Your task to perform on an android device: open a bookmark in the chrome app Image 0: 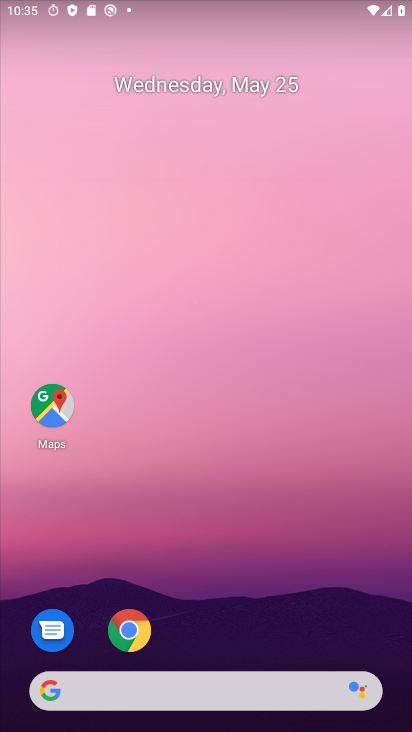
Step 0: click (126, 633)
Your task to perform on an android device: open a bookmark in the chrome app Image 1: 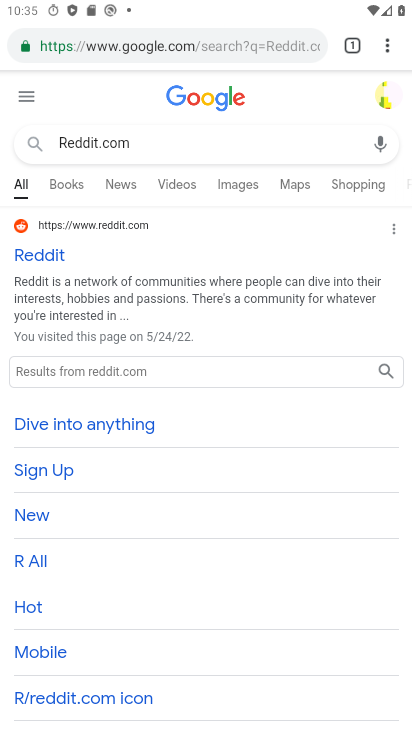
Step 1: click (318, 43)
Your task to perform on an android device: open a bookmark in the chrome app Image 2: 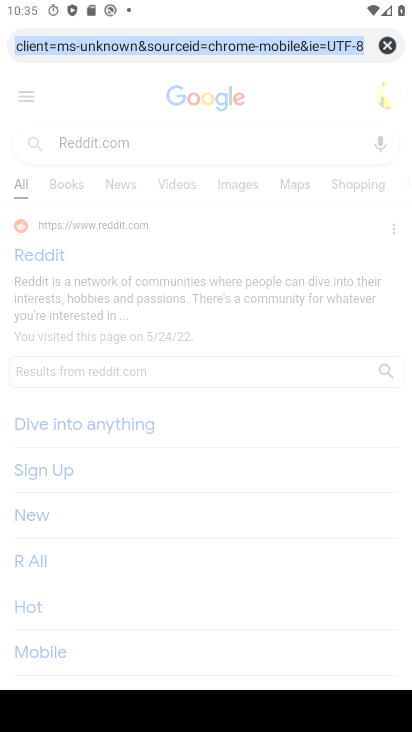
Step 2: click (380, 42)
Your task to perform on an android device: open a bookmark in the chrome app Image 3: 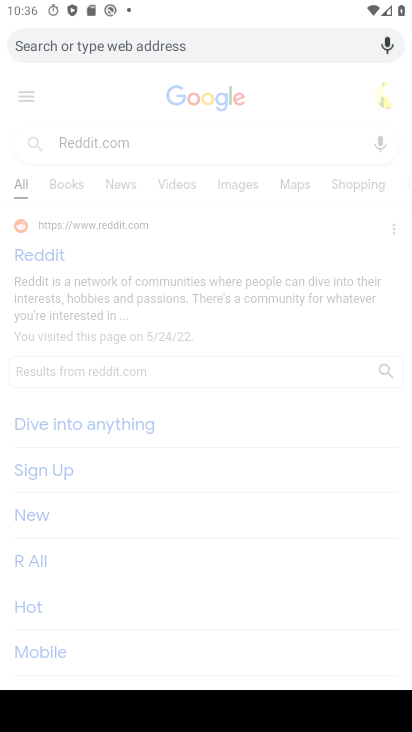
Step 3: press back button
Your task to perform on an android device: open a bookmark in the chrome app Image 4: 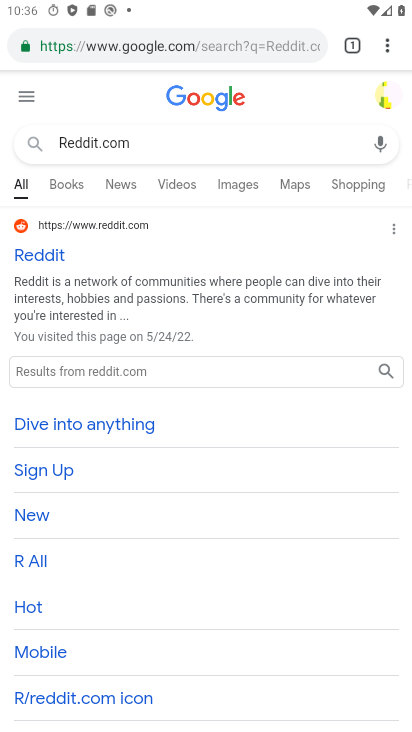
Step 4: click (385, 47)
Your task to perform on an android device: open a bookmark in the chrome app Image 5: 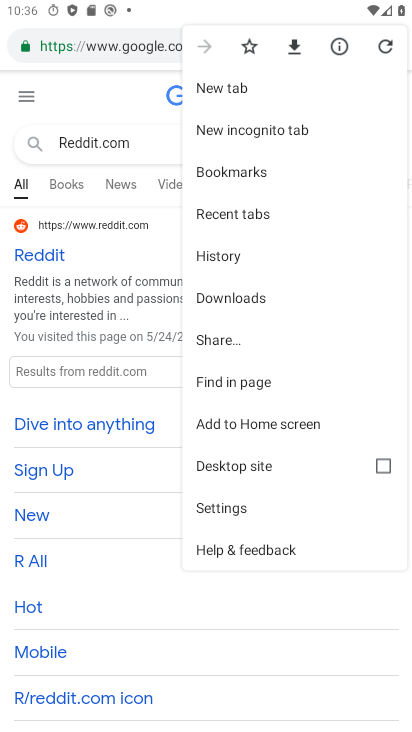
Step 5: click (208, 502)
Your task to perform on an android device: open a bookmark in the chrome app Image 6: 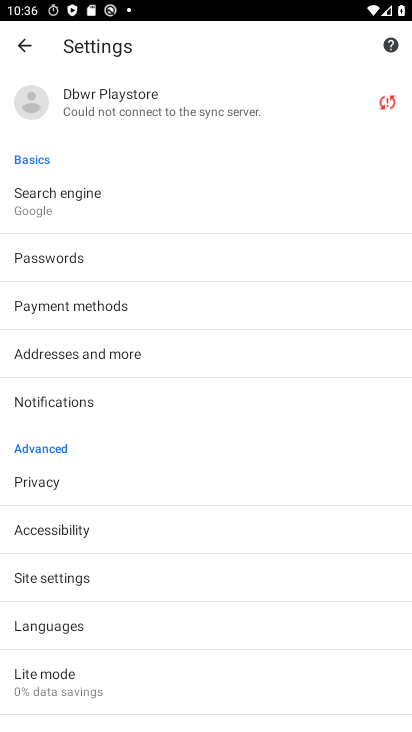
Step 6: drag from (203, 683) to (227, 293)
Your task to perform on an android device: open a bookmark in the chrome app Image 7: 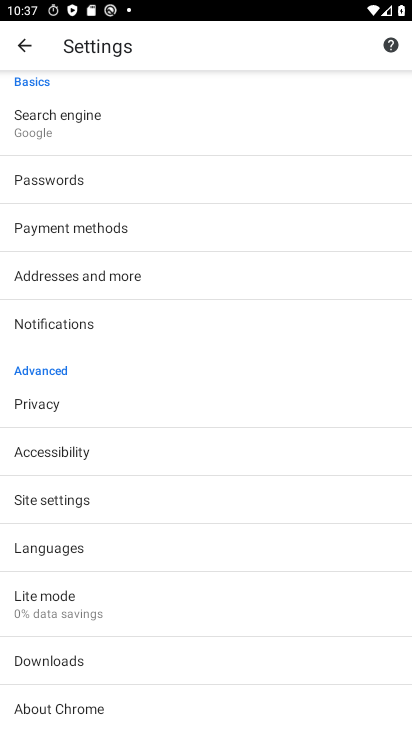
Step 7: click (21, 51)
Your task to perform on an android device: open a bookmark in the chrome app Image 8: 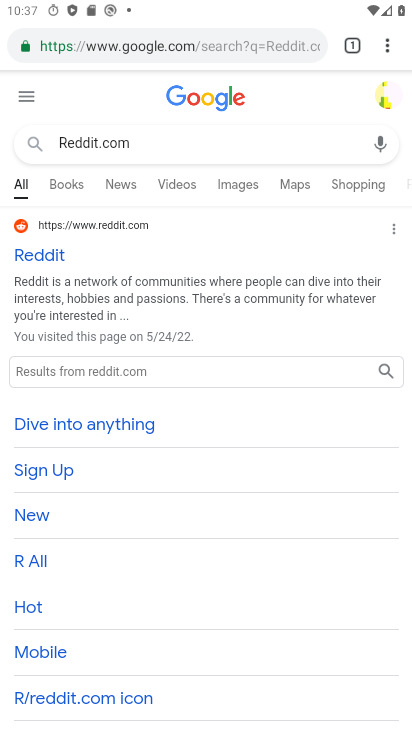
Step 8: click (384, 48)
Your task to perform on an android device: open a bookmark in the chrome app Image 9: 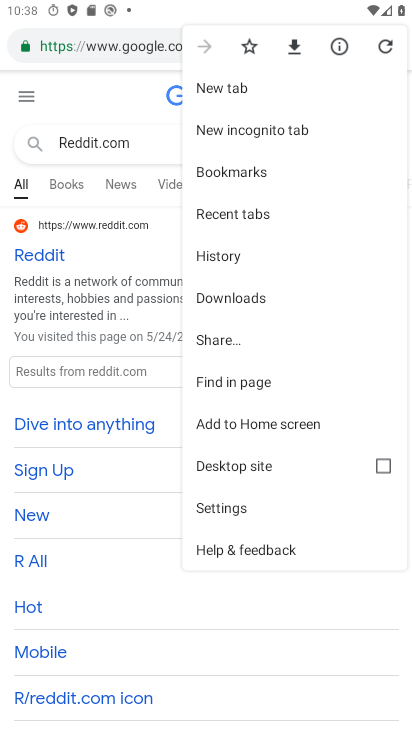
Step 9: click (240, 171)
Your task to perform on an android device: open a bookmark in the chrome app Image 10: 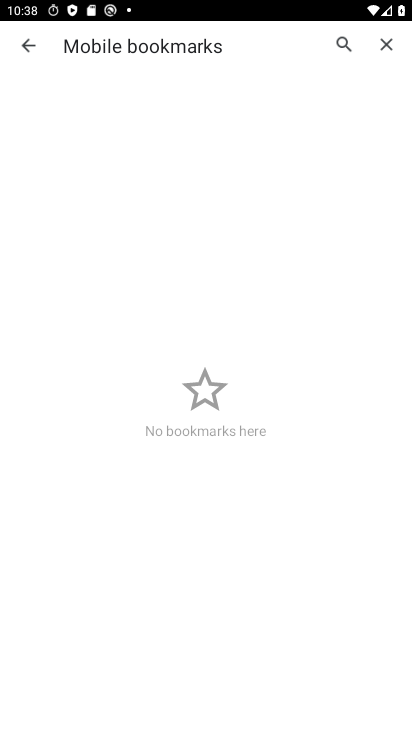
Step 10: task complete